Your task to perform on an android device: empty trash in google photos Image 0: 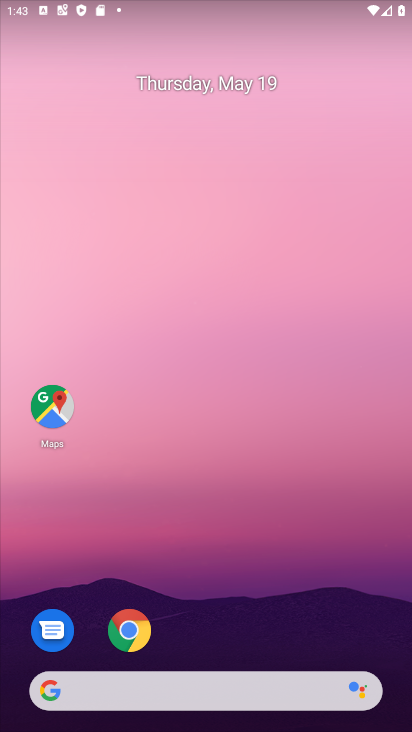
Step 0: drag from (376, 629) to (288, 135)
Your task to perform on an android device: empty trash in google photos Image 1: 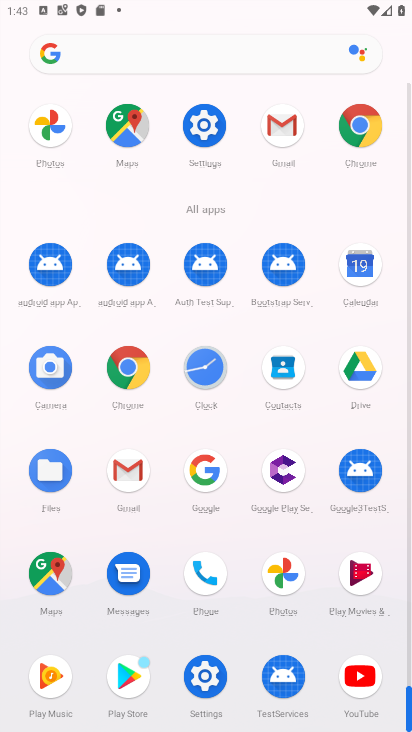
Step 1: click (282, 570)
Your task to perform on an android device: empty trash in google photos Image 2: 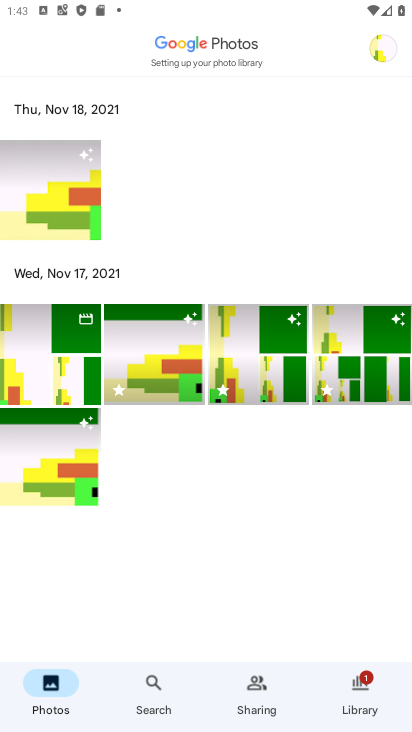
Step 2: click (362, 697)
Your task to perform on an android device: empty trash in google photos Image 3: 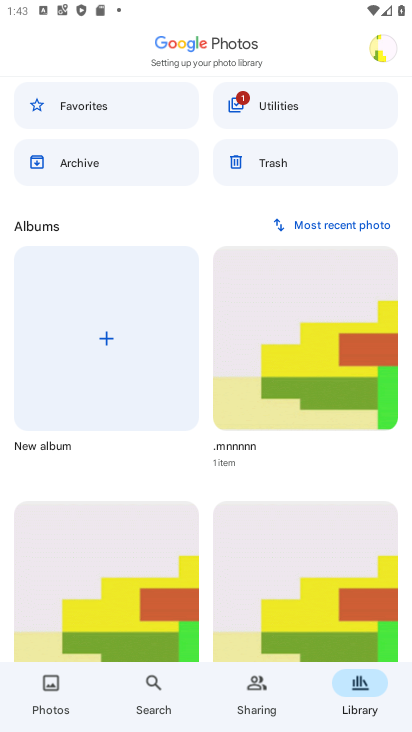
Step 3: click (271, 159)
Your task to perform on an android device: empty trash in google photos Image 4: 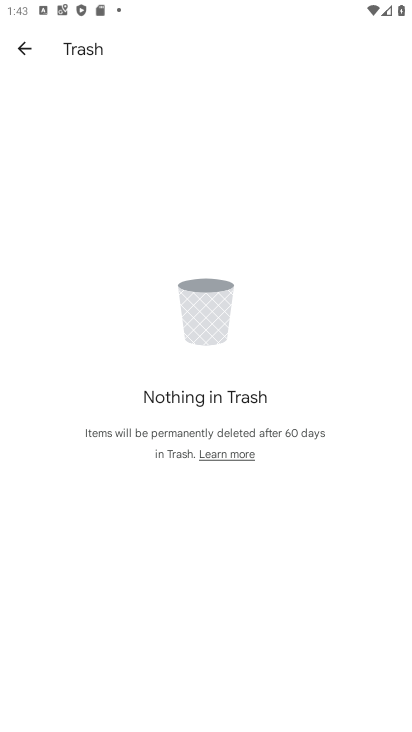
Step 4: task complete